Your task to perform on an android device: Go to internet settings Image 0: 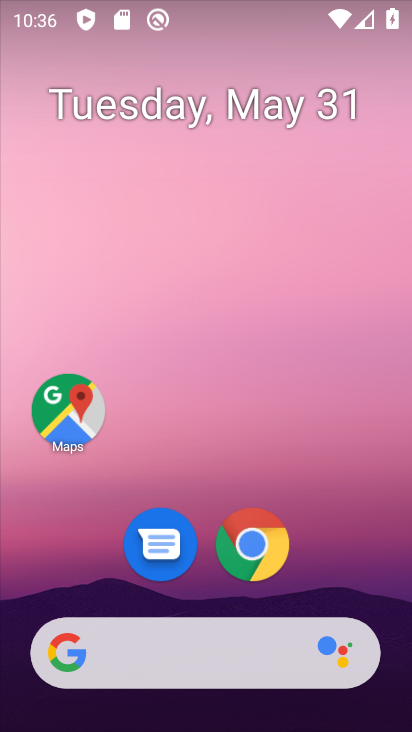
Step 0: drag from (190, 589) to (212, 136)
Your task to perform on an android device: Go to internet settings Image 1: 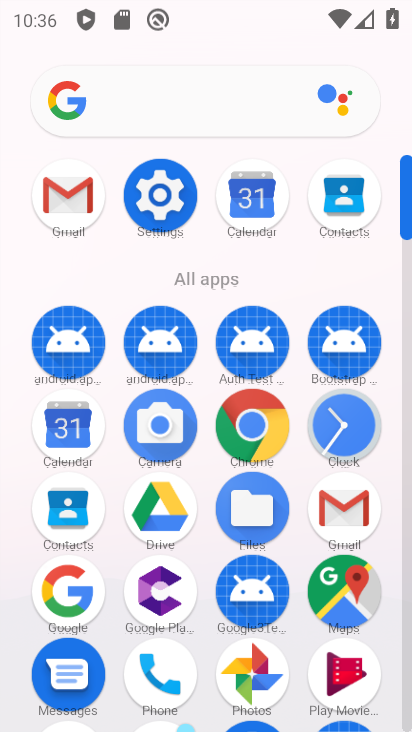
Step 1: click (171, 167)
Your task to perform on an android device: Go to internet settings Image 2: 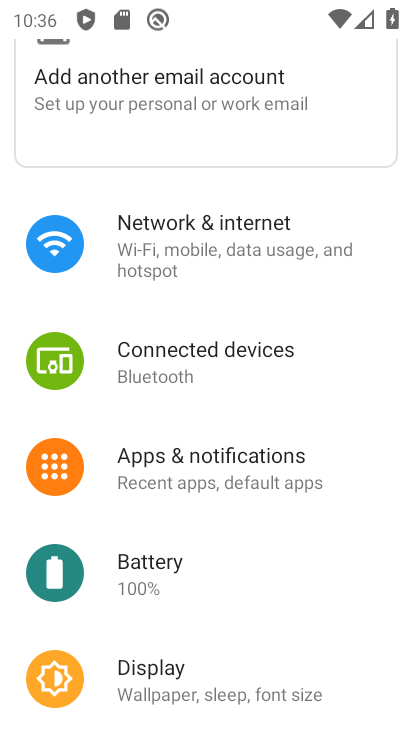
Step 2: click (186, 246)
Your task to perform on an android device: Go to internet settings Image 3: 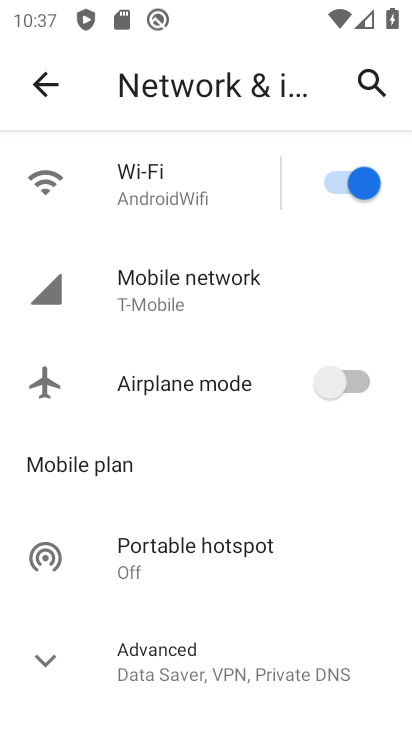
Step 3: task complete